Your task to perform on an android device: toggle javascript in the chrome app Image 0: 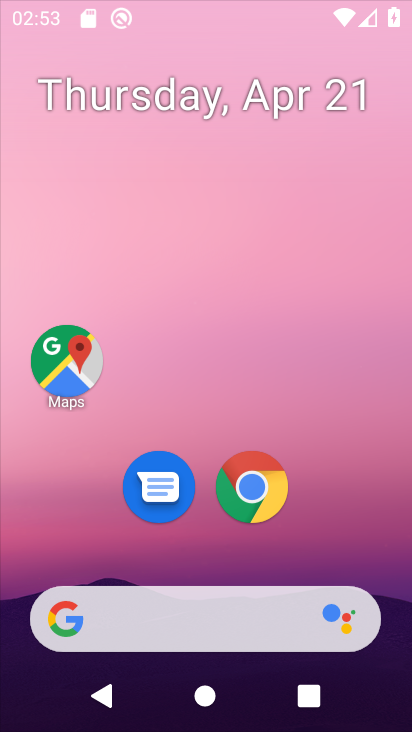
Step 0: click (369, 172)
Your task to perform on an android device: toggle javascript in the chrome app Image 1: 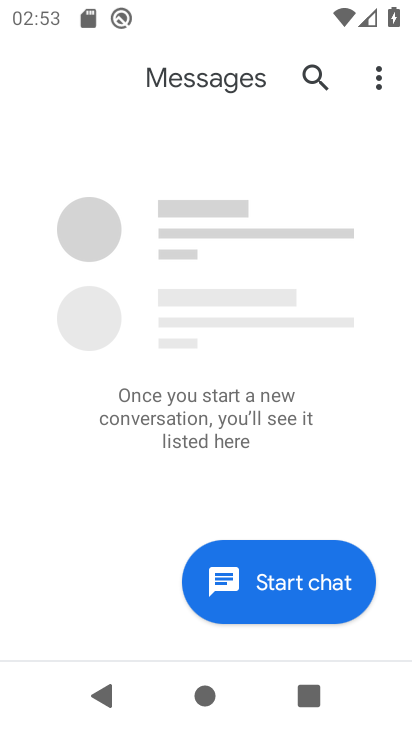
Step 1: press home button
Your task to perform on an android device: toggle javascript in the chrome app Image 2: 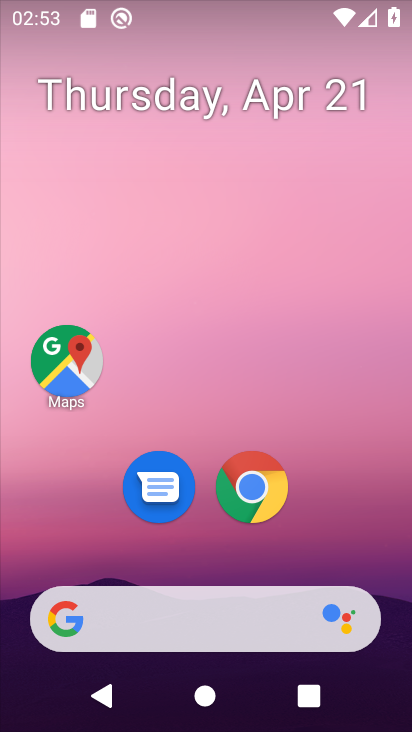
Step 2: drag from (211, 565) to (279, 99)
Your task to perform on an android device: toggle javascript in the chrome app Image 3: 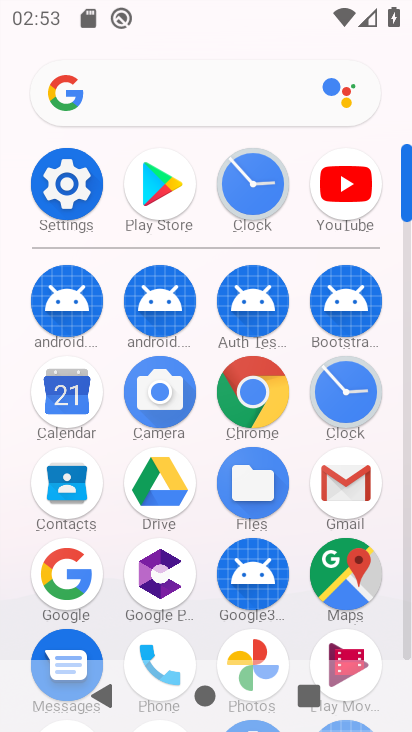
Step 3: click (242, 388)
Your task to perform on an android device: toggle javascript in the chrome app Image 4: 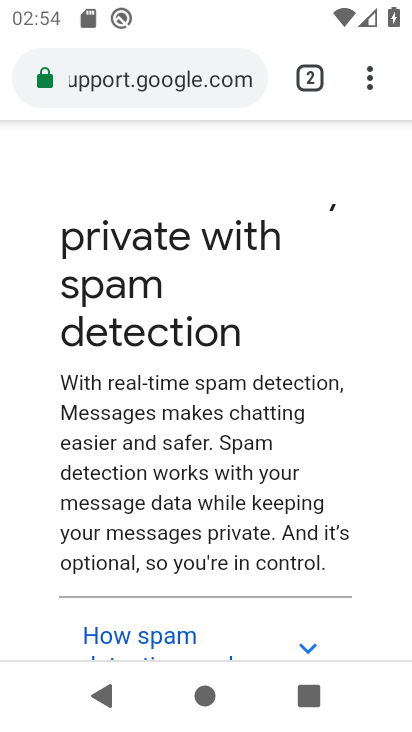
Step 4: drag from (252, 496) to (302, 216)
Your task to perform on an android device: toggle javascript in the chrome app Image 5: 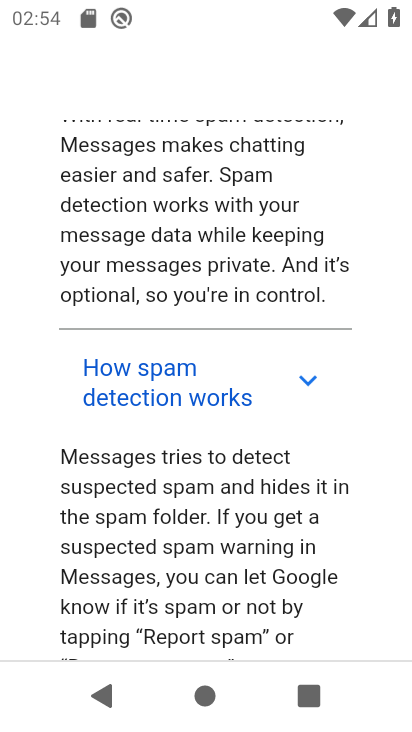
Step 5: drag from (224, 262) to (268, 641)
Your task to perform on an android device: toggle javascript in the chrome app Image 6: 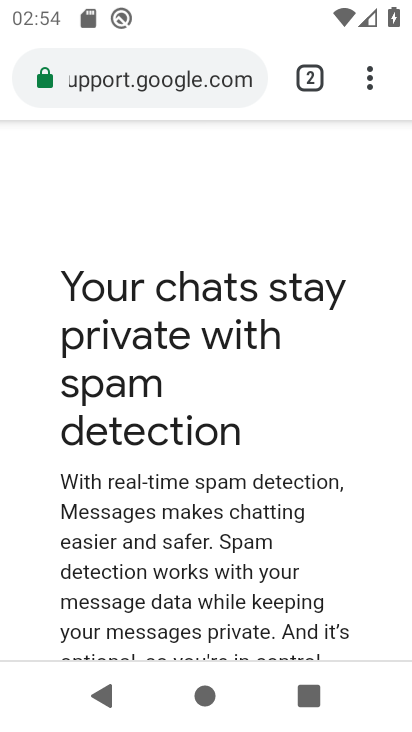
Step 6: drag from (377, 90) to (130, 531)
Your task to perform on an android device: toggle javascript in the chrome app Image 7: 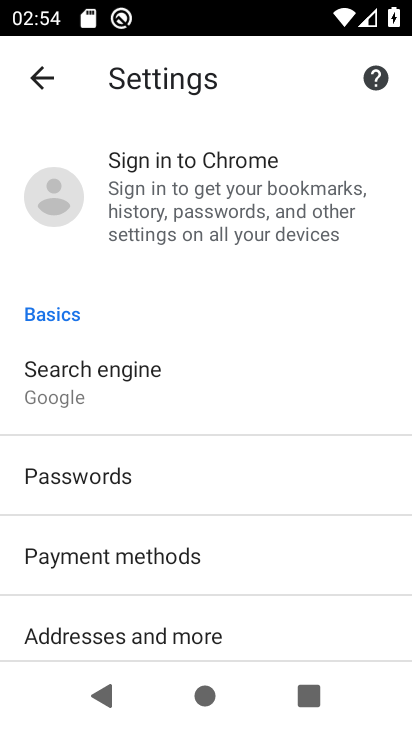
Step 7: drag from (199, 576) to (262, 169)
Your task to perform on an android device: toggle javascript in the chrome app Image 8: 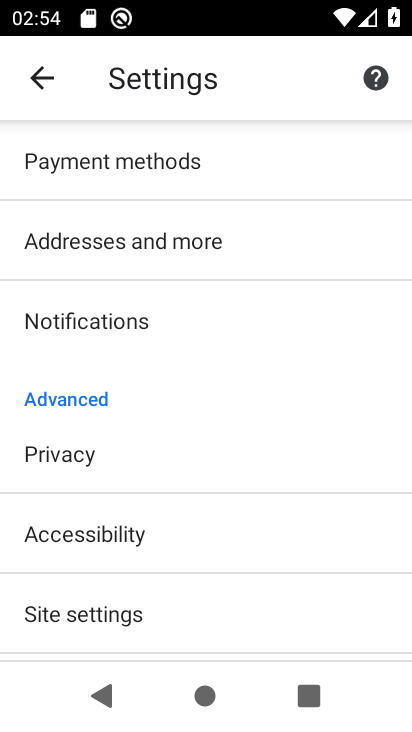
Step 8: drag from (198, 552) to (254, 253)
Your task to perform on an android device: toggle javascript in the chrome app Image 9: 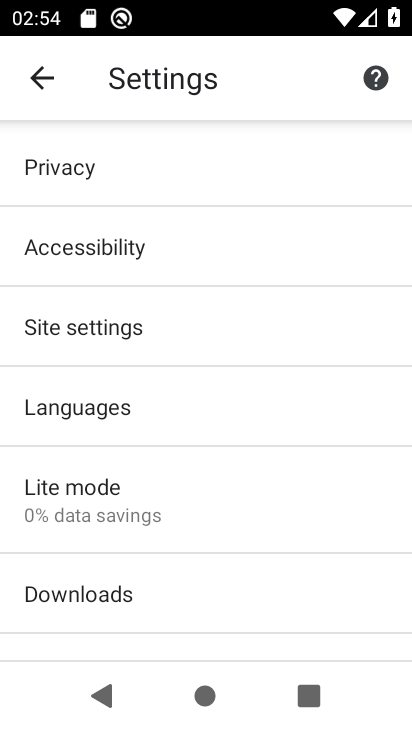
Step 9: click (130, 329)
Your task to perform on an android device: toggle javascript in the chrome app Image 10: 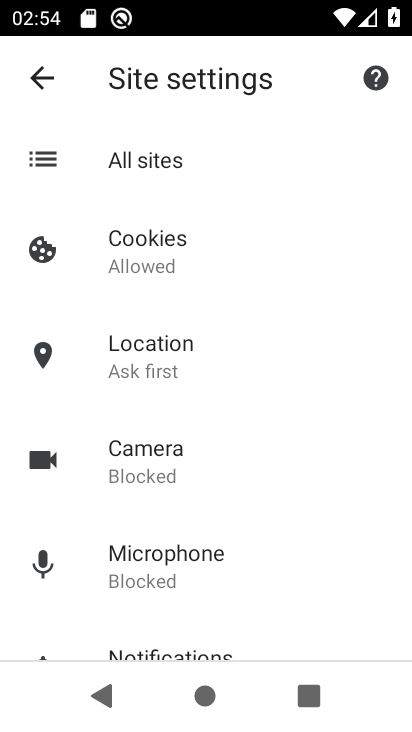
Step 10: drag from (129, 544) to (238, 169)
Your task to perform on an android device: toggle javascript in the chrome app Image 11: 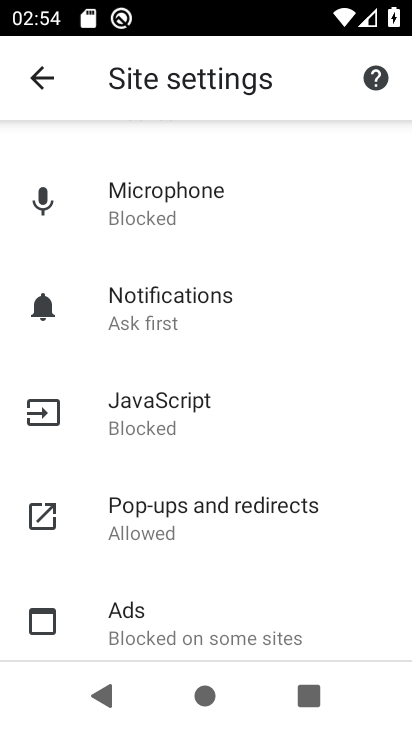
Step 11: click (167, 412)
Your task to perform on an android device: toggle javascript in the chrome app Image 12: 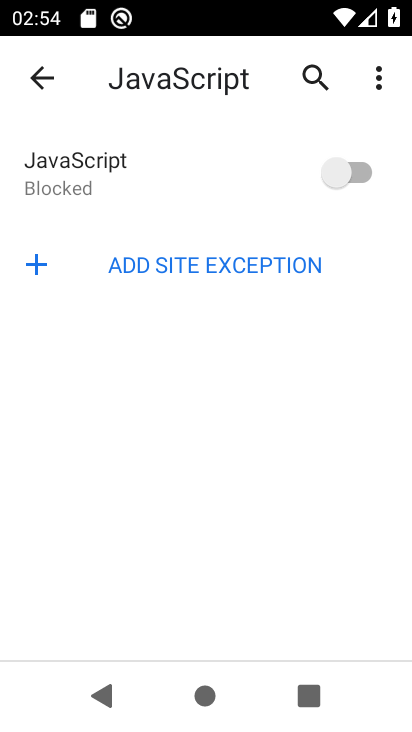
Step 12: click (229, 369)
Your task to perform on an android device: toggle javascript in the chrome app Image 13: 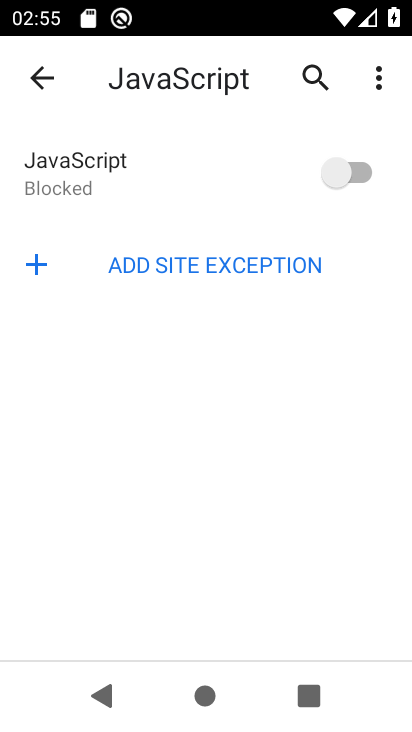
Step 13: drag from (206, 544) to (197, 267)
Your task to perform on an android device: toggle javascript in the chrome app Image 14: 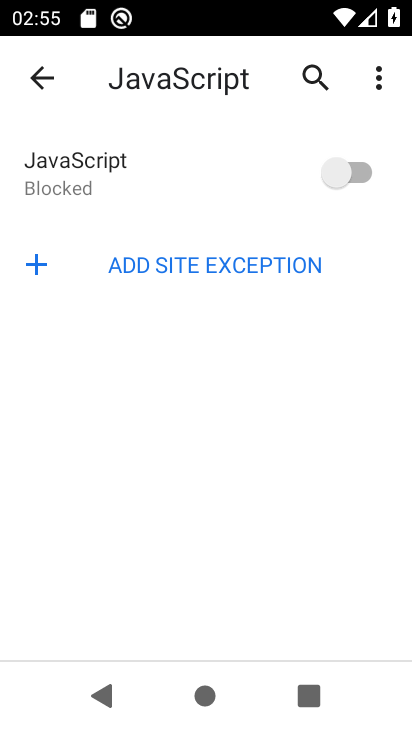
Step 14: drag from (180, 522) to (213, 319)
Your task to perform on an android device: toggle javascript in the chrome app Image 15: 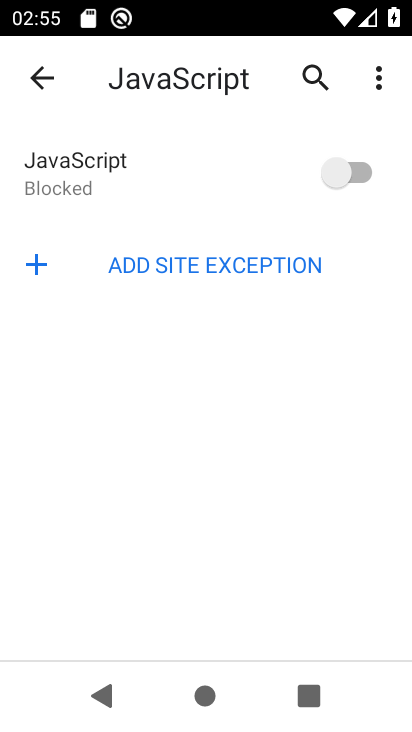
Step 15: drag from (231, 510) to (243, 450)
Your task to perform on an android device: toggle javascript in the chrome app Image 16: 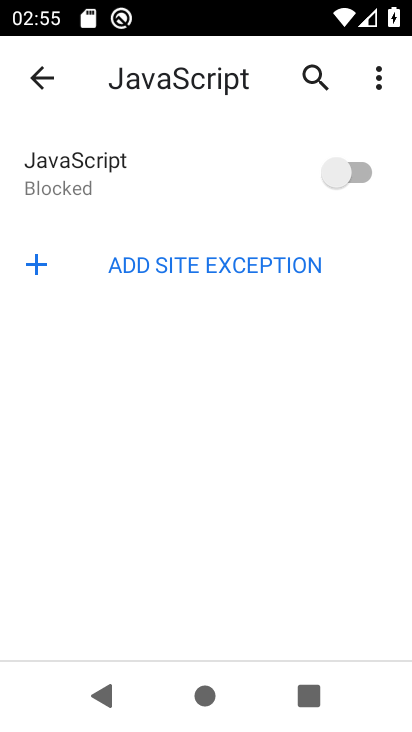
Step 16: drag from (235, 315) to (278, 91)
Your task to perform on an android device: toggle javascript in the chrome app Image 17: 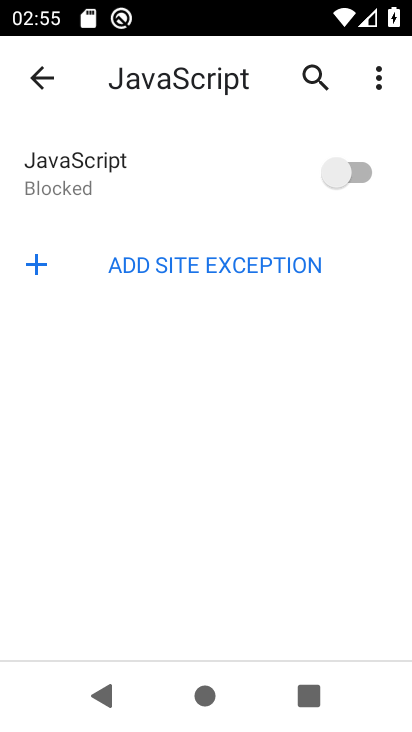
Step 17: drag from (252, 354) to (253, 182)
Your task to perform on an android device: toggle javascript in the chrome app Image 18: 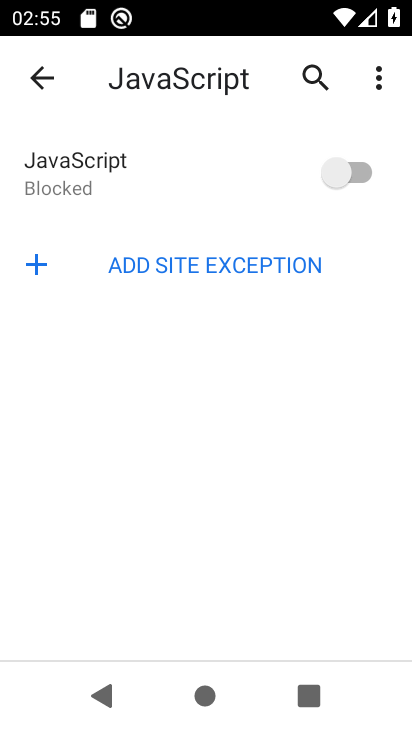
Step 18: click (104, 138)
Your task to perform on an android device: toggle javascript in the chrome app Image 19: 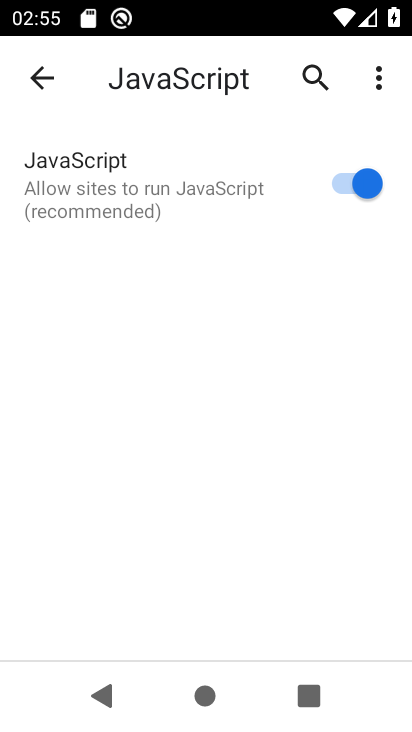
Step 19: drag from (226, 497) to (231, 334)
Your task to perform on an android device: toggle javascript in the chrome app Image 20: 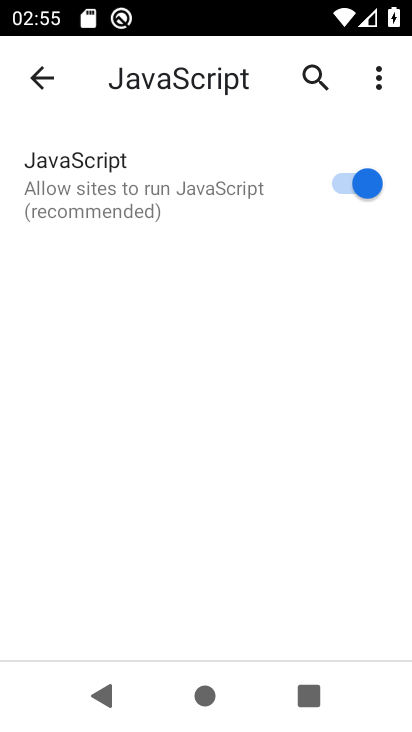
Step 20: click (262, 186)
Your task to perform on an android device: toggle javascript in the chrome app Image 21: 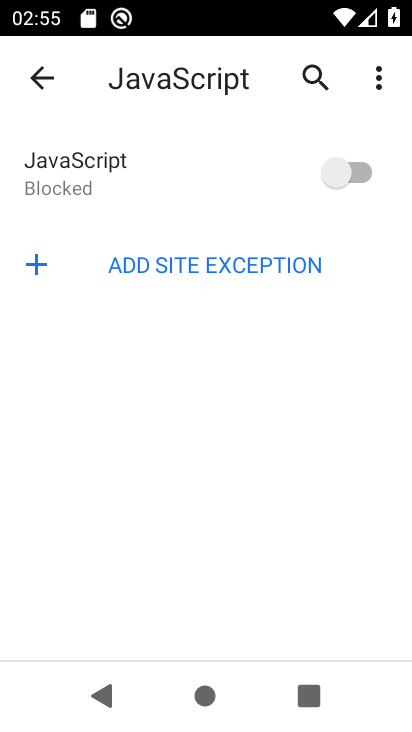
Step 21: drag from (273, 529) to (261, 379)
Your task to perform on an android device: toggle javascript in the chrome app Image 22: 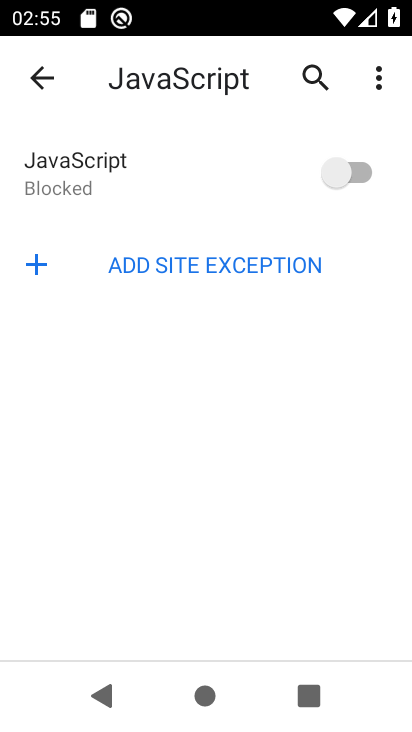
Step 22: drag from (255, 394) to (292, 255)
Your task to perform on an android device: toggle javascript in the chrome app Image 23: 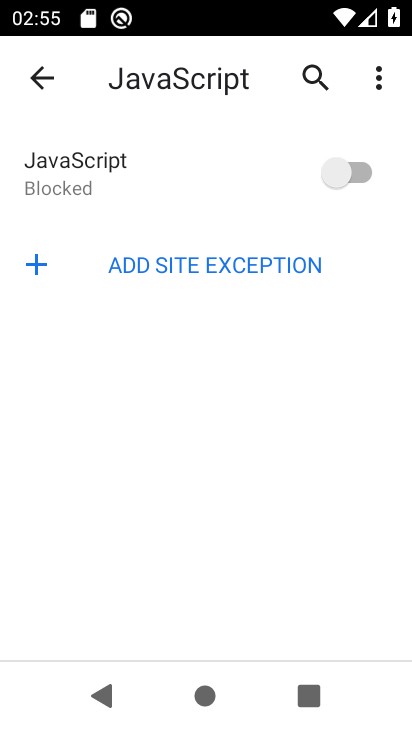
Step 23: click (282, 161)
Your task to perform on an android device: toggle javascript in the chrome app Image 24: 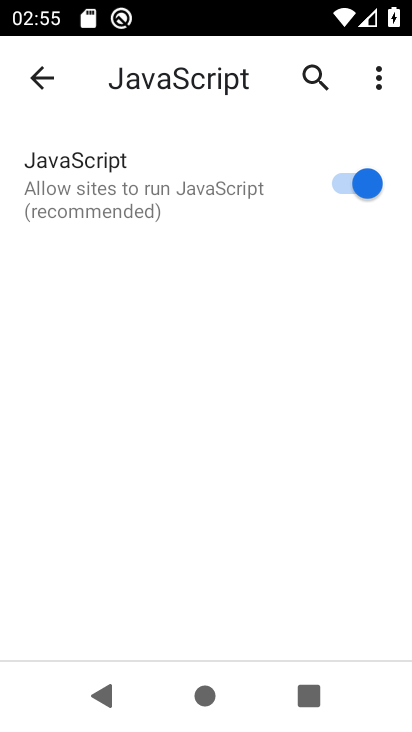
Step 24: task complete